Your task to perform on an android device: turn off sleep mode Image 0: 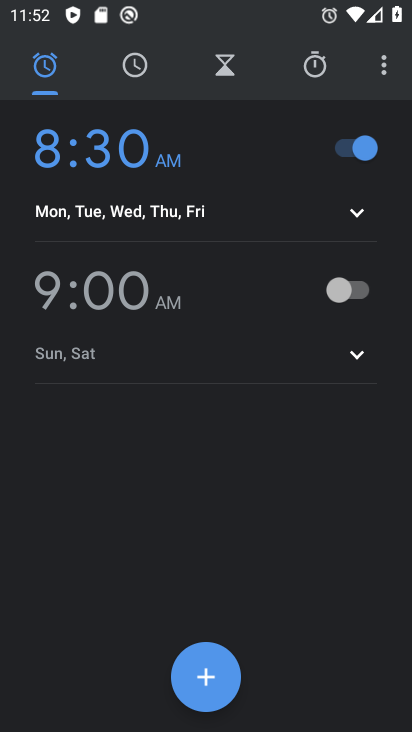
Step 0: press home button
Your task to perform on an android device: turn off sleep mode Image 1: 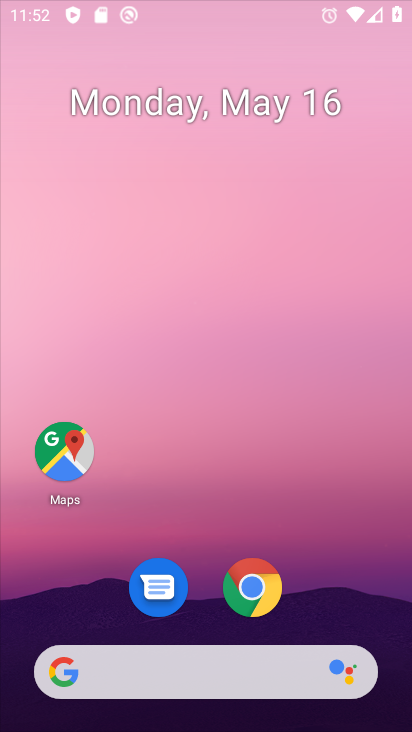
Step 1: drag from (396, 644) to (256, 69)
Your task to perform on an android device: turn off sleep mode Image 2: 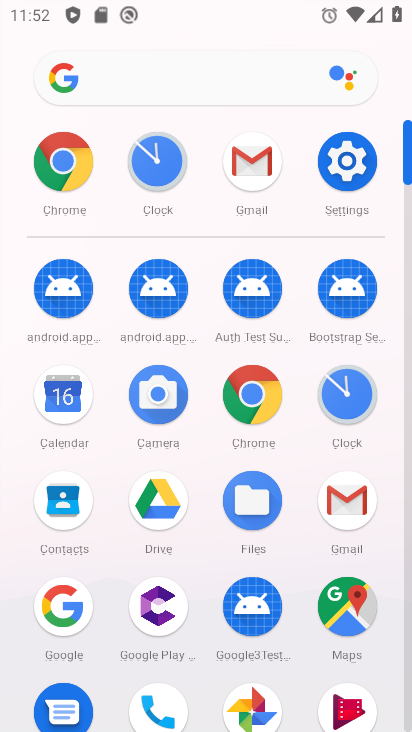
Step 2: click (352, 171)
Your task to perform on an android device: turn off sleep mode Image 3: 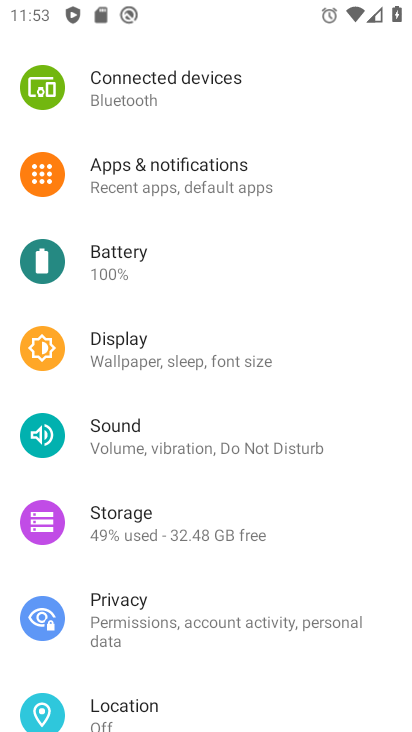
Step 3: task complete